Your task to perform on an android device: add a contact in the contacts app Image 0: 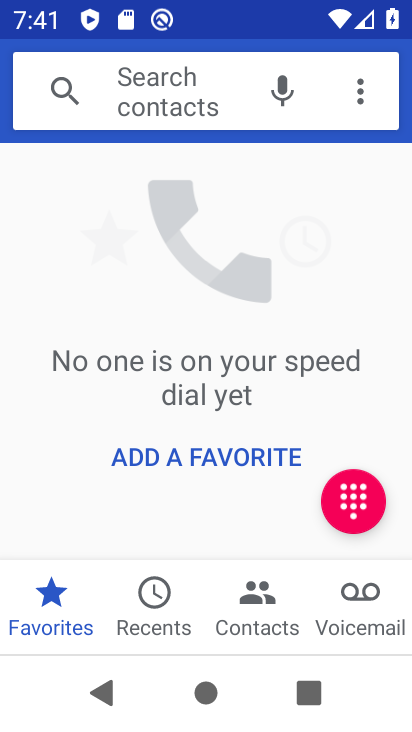
Step 0: click (214, 456)
Your task to perform on an android device: add a contact in the contacts app Image 1: 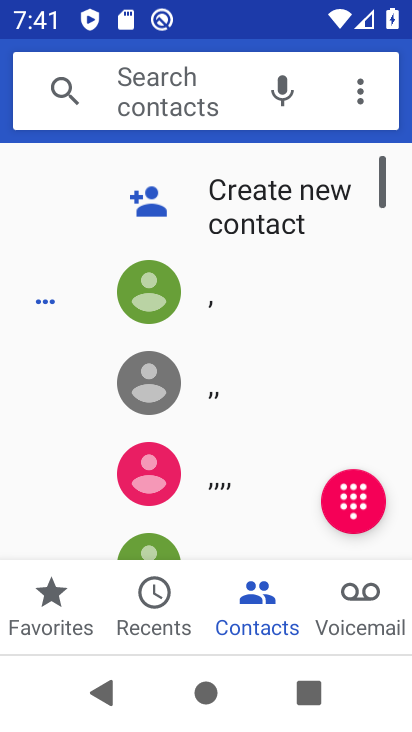
Step 1: click (226, 194)
Your task to perform on an android device: add a contact in the contacts app Image 2: 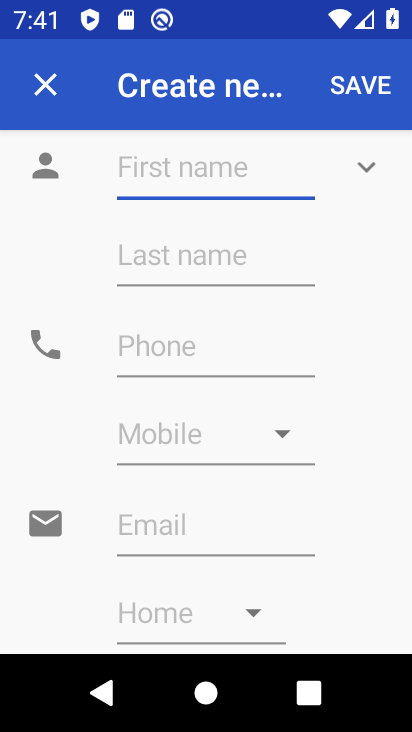
Step 2: click (213, 166)
Your task to perform on an android device: add a contact in the contacts app Image 3: 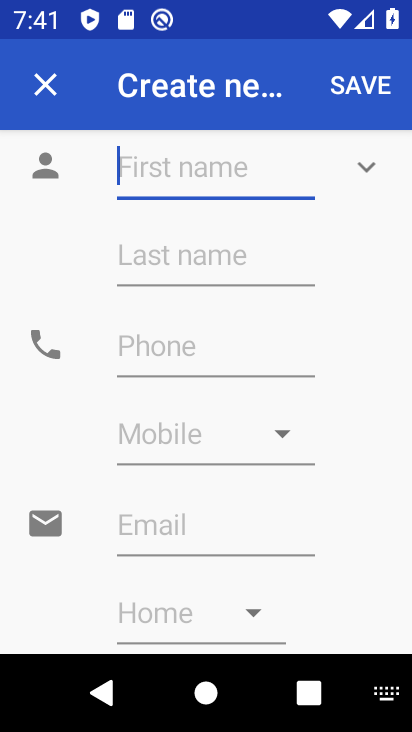
Step 3: type "kkjkkkjkjkkjkjkj"
Your task to perform on an android device: add a contact in the contacts app Image 4: 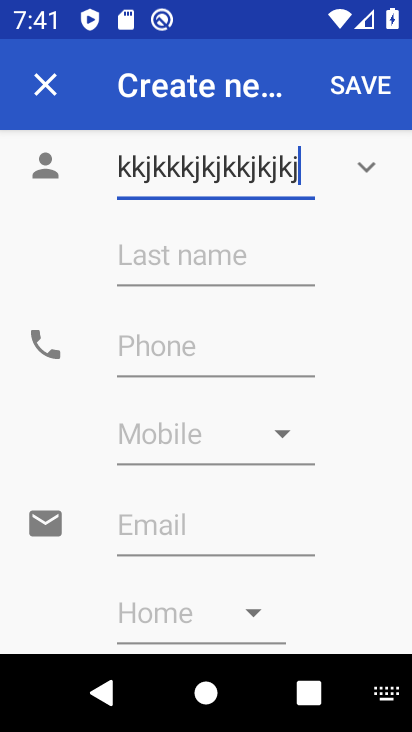
Step 4: click (176, 338)
Your task to perform on an android device: add a contact in the contacts app Image 5: 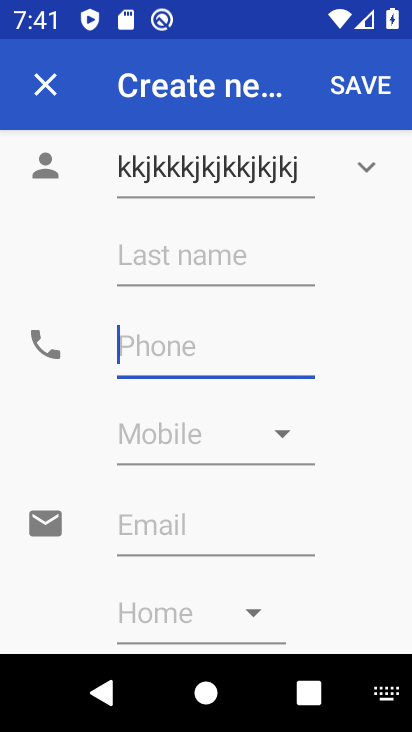
Step 5: type "8888888888888"
Your task to perform on an android device: add a contact in the contacts app Image 6: 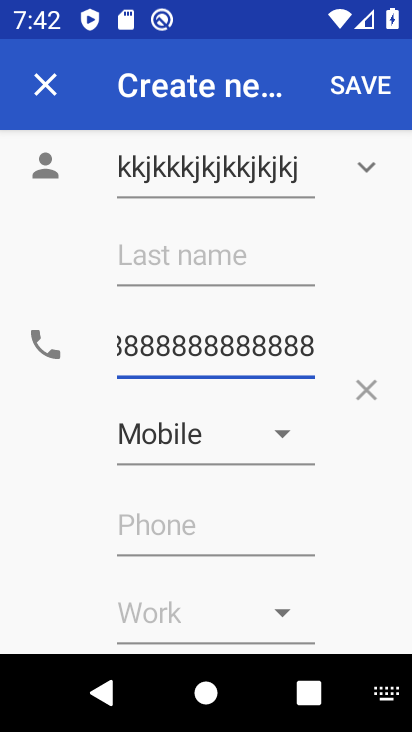
Step 6: click (364, 87)
Your task to perform on an android device: add a contact in the contacts app Image 7: 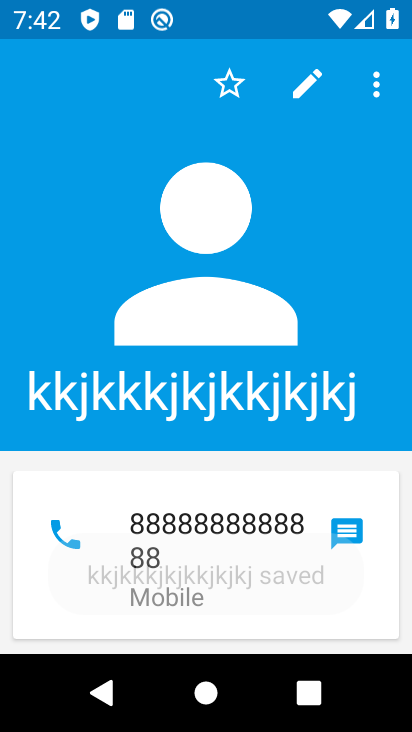
Step 7: task complete